Your task to perform on an android device: open app "Facebook Lite" Image 0: 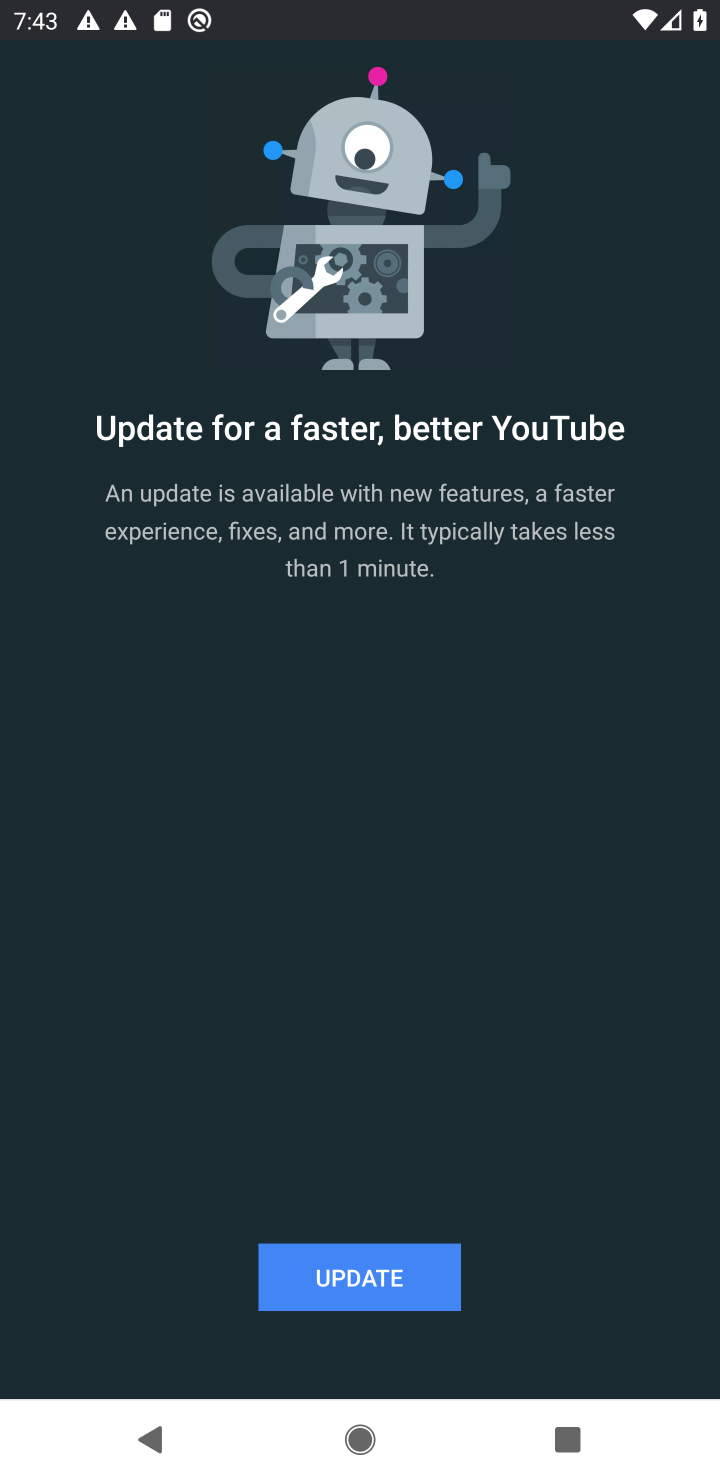
Step 0: press home button
Your task to perform on an android device: open app "Facebook Lite" Image 1: 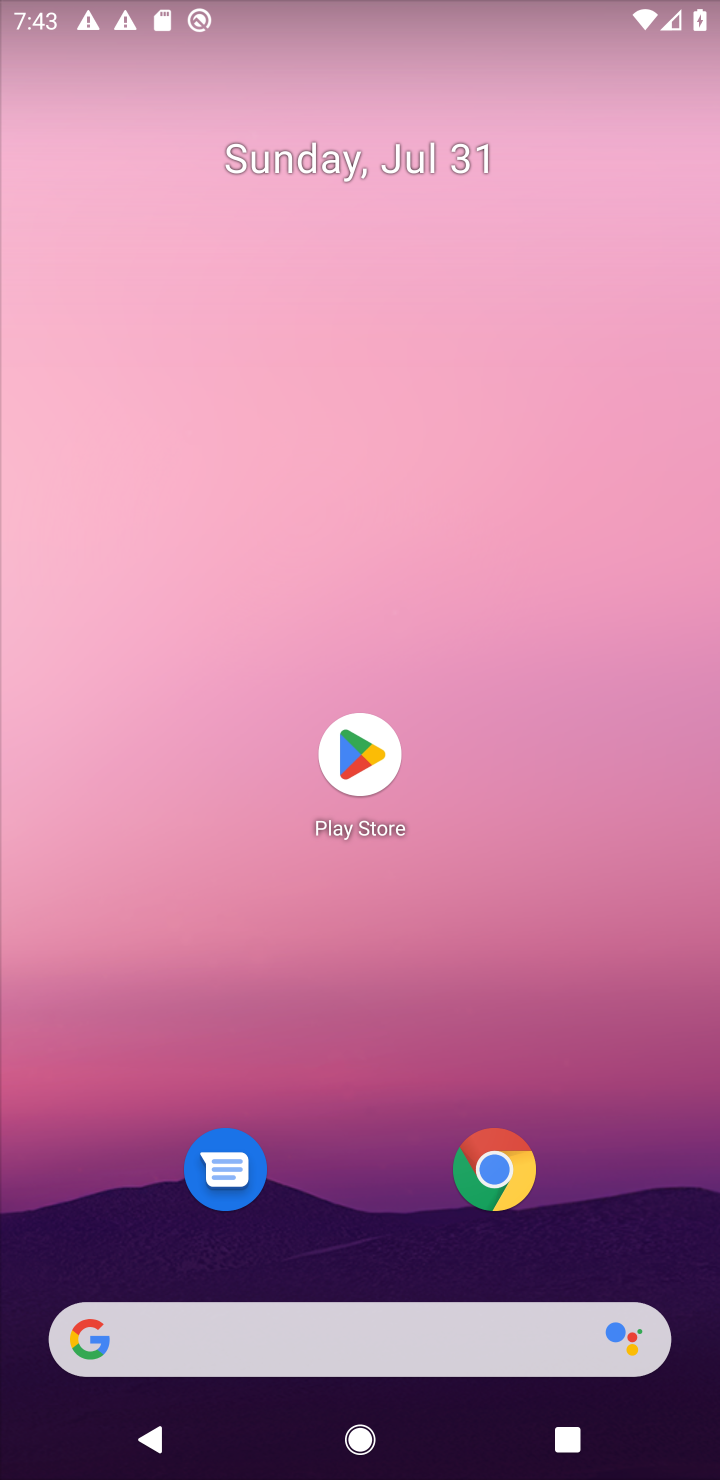
Step 1: click (358, 756)
Your task to perform on an android device: open app "Facebook Lite" Image 2: 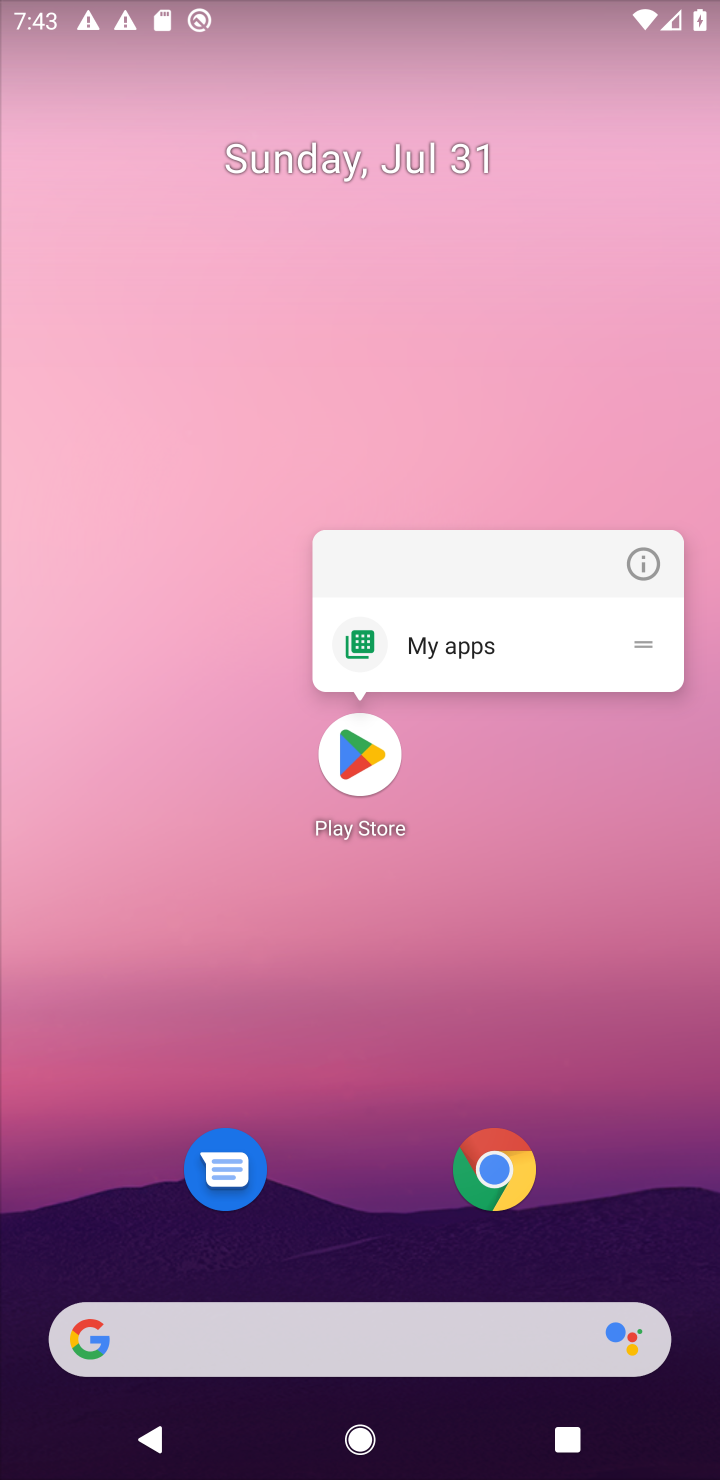
Step 2: click (364, 753)
Your task to perform on an android device: open app "Facebook Lite" Image 3: 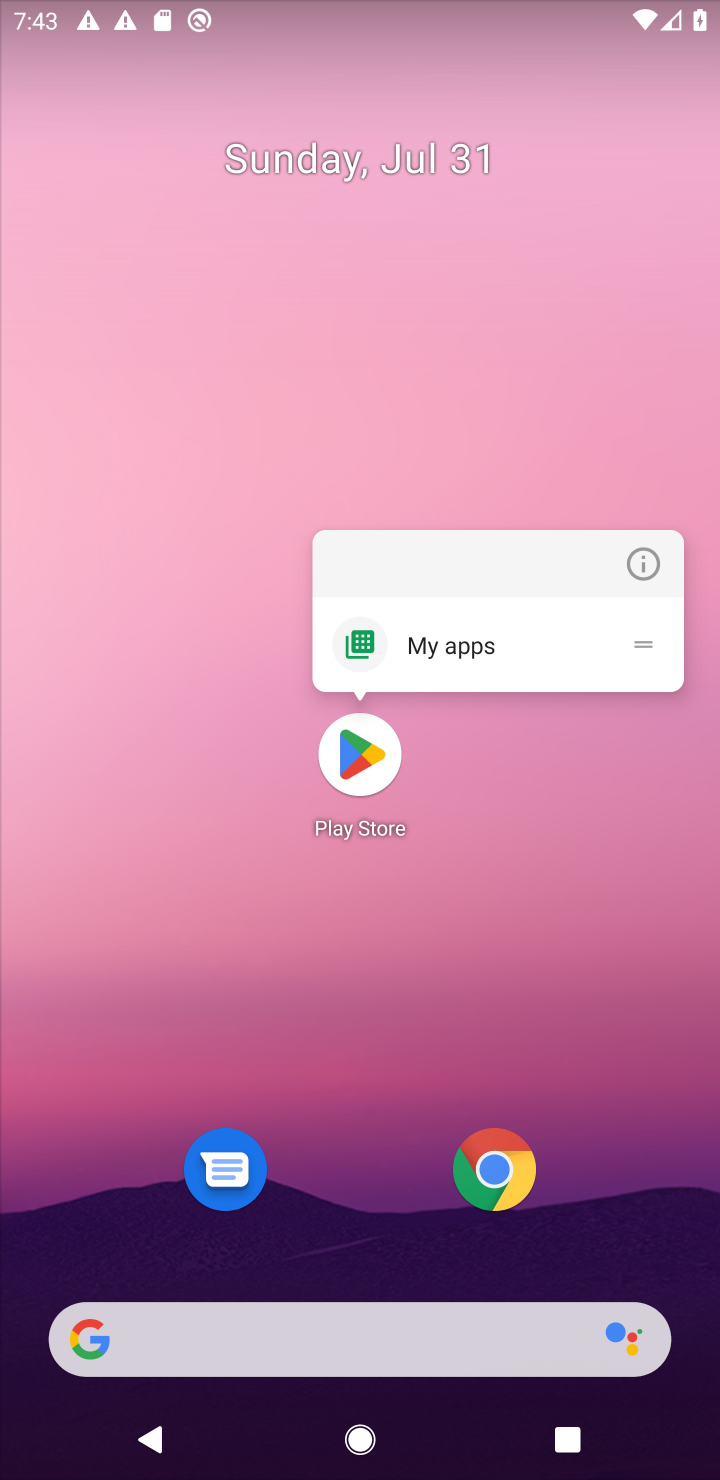
Step 3: click (364, 756)
Your task to perform on an android device: open app "Facebook Lite" Image 4: 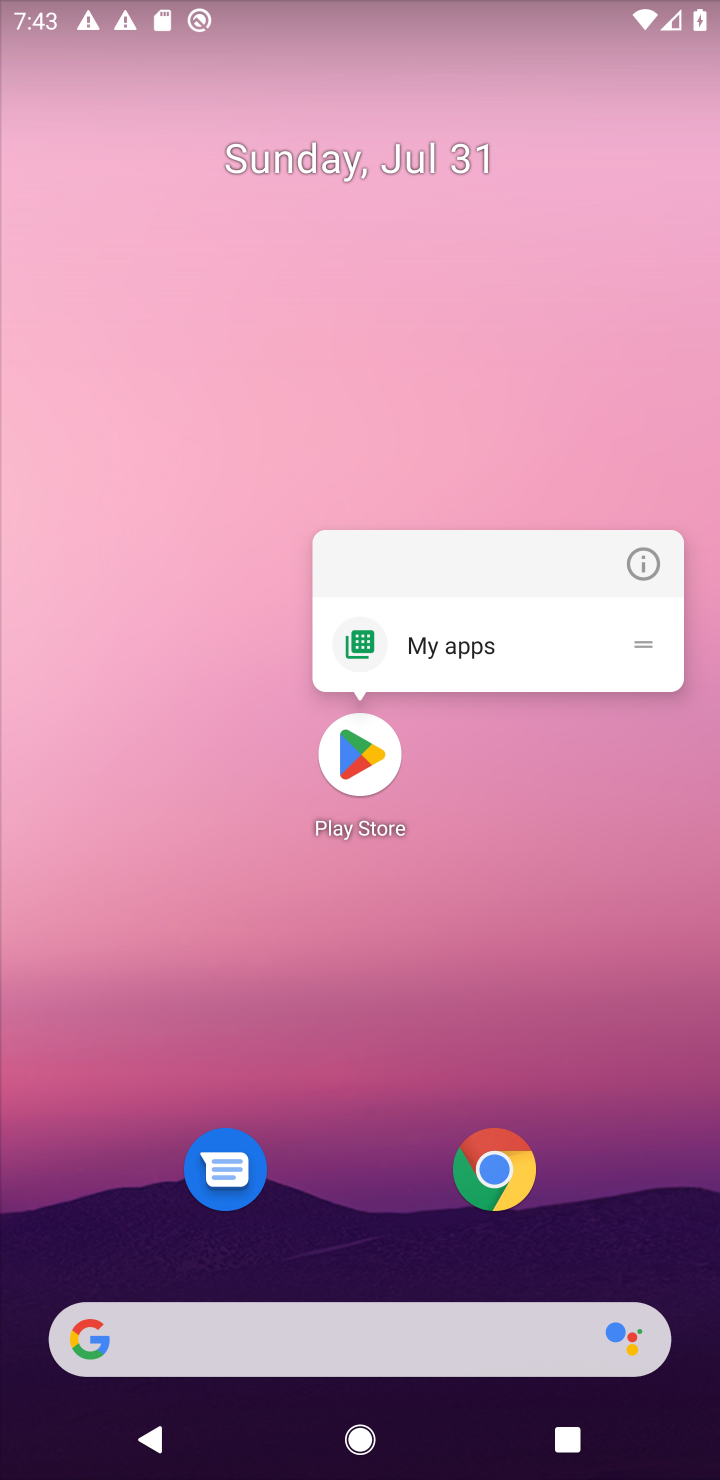
Step 4: click (364, 758)
Your task to perform on an android device: open app "Facebook Lite" Image 5: 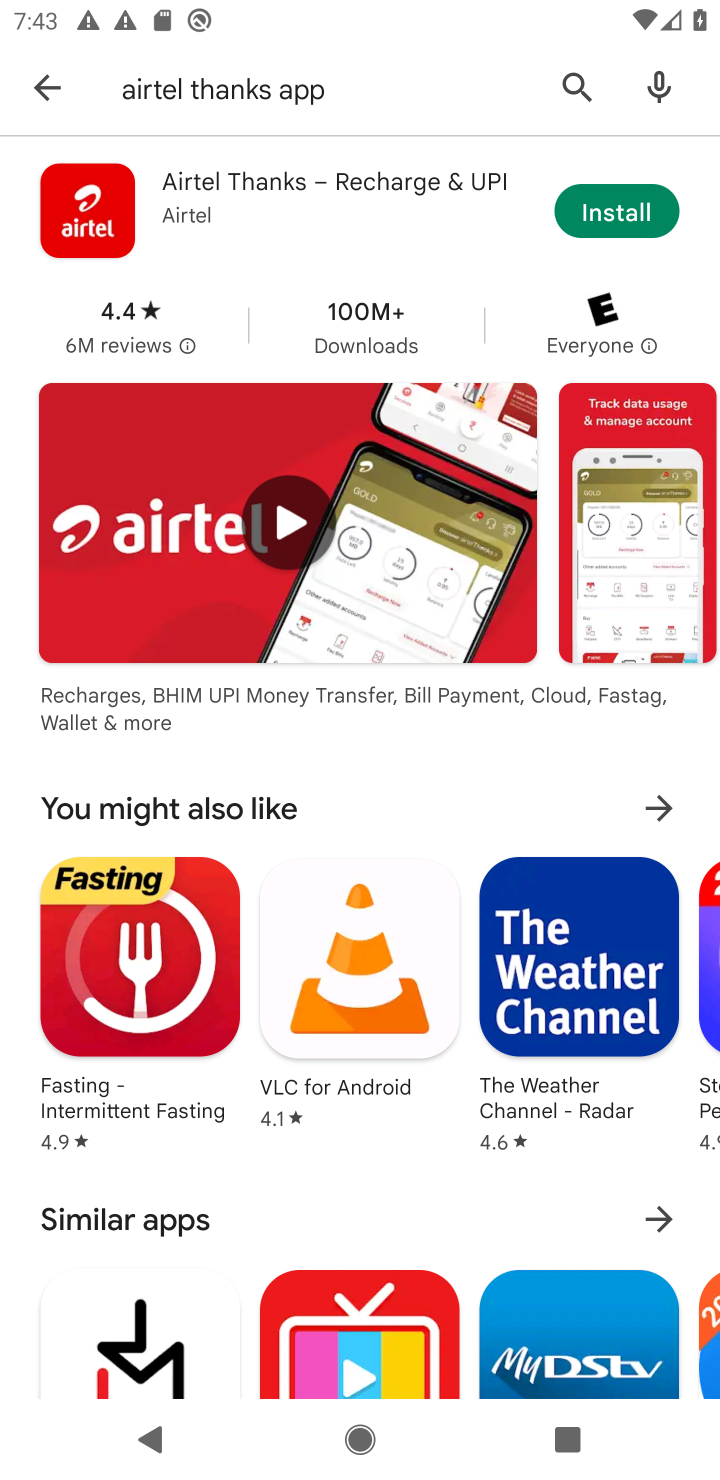
Step 5: click (575, 82)
Your task to perform on an android device: open app "Facebook Lite" Image 6: 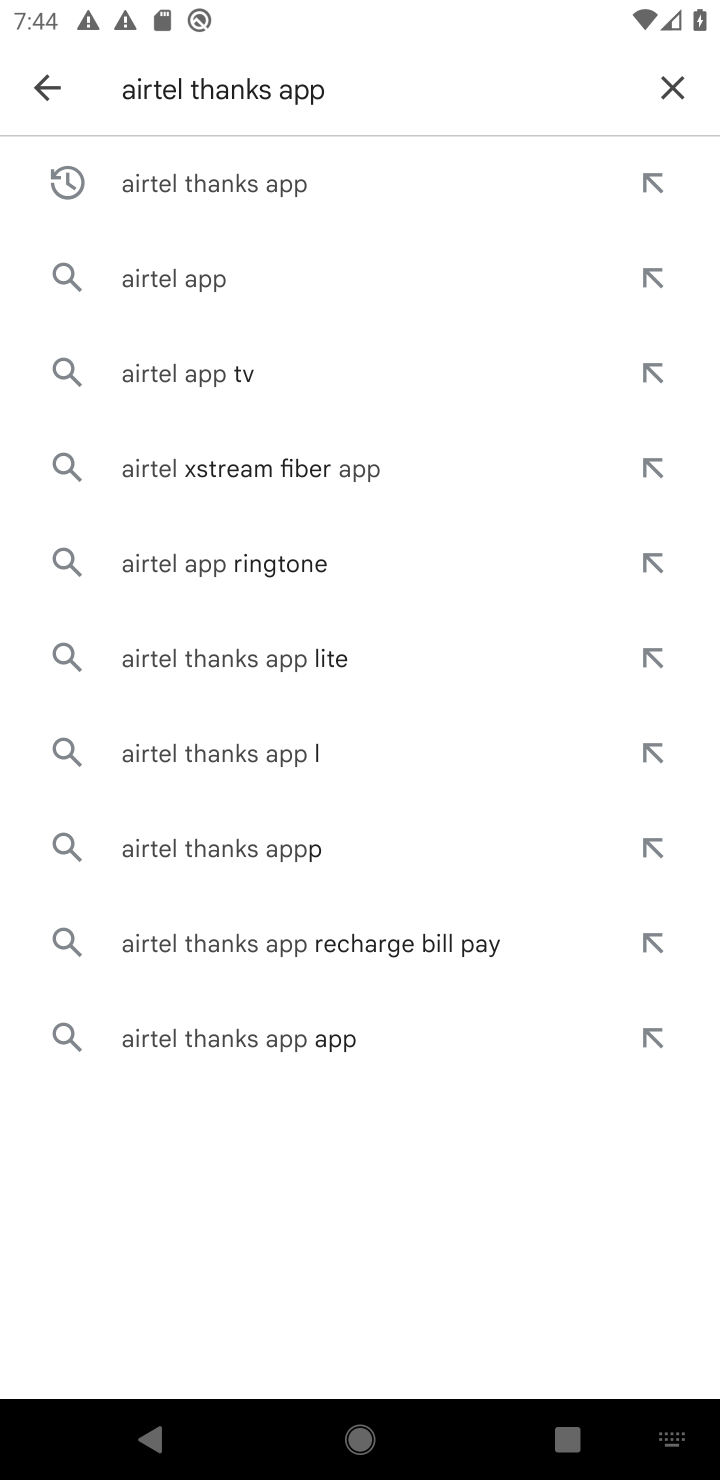
Step 6: click (666, 86)
Your task to perform on an android device: open app "Facebook Lite" Image 7: 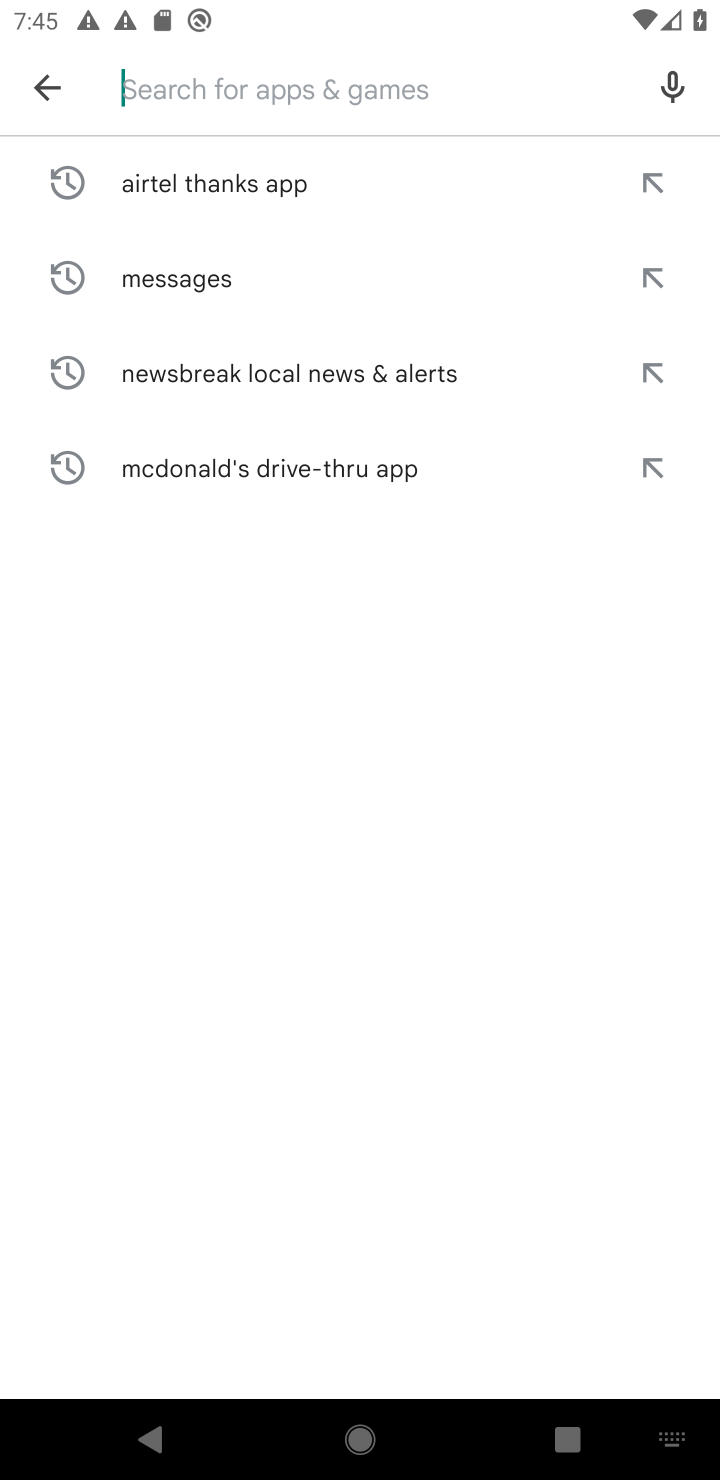
Step 7: type "Facebook Lite"
Your task to perform on an android device: open app "Facebook Lite" Image 8: 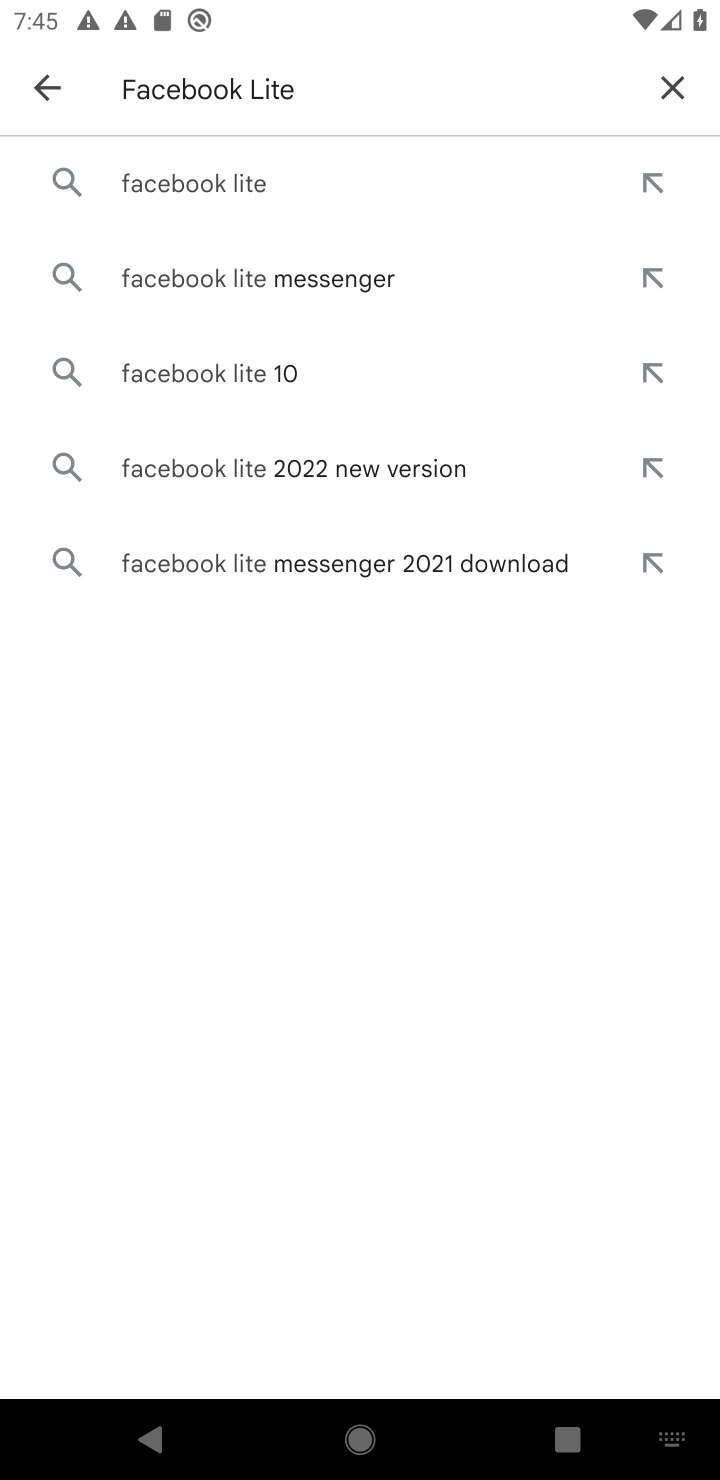
Step 8: click (212, 181)
Your task to perform on an android device: open app "Facebook Lite" Image 9: 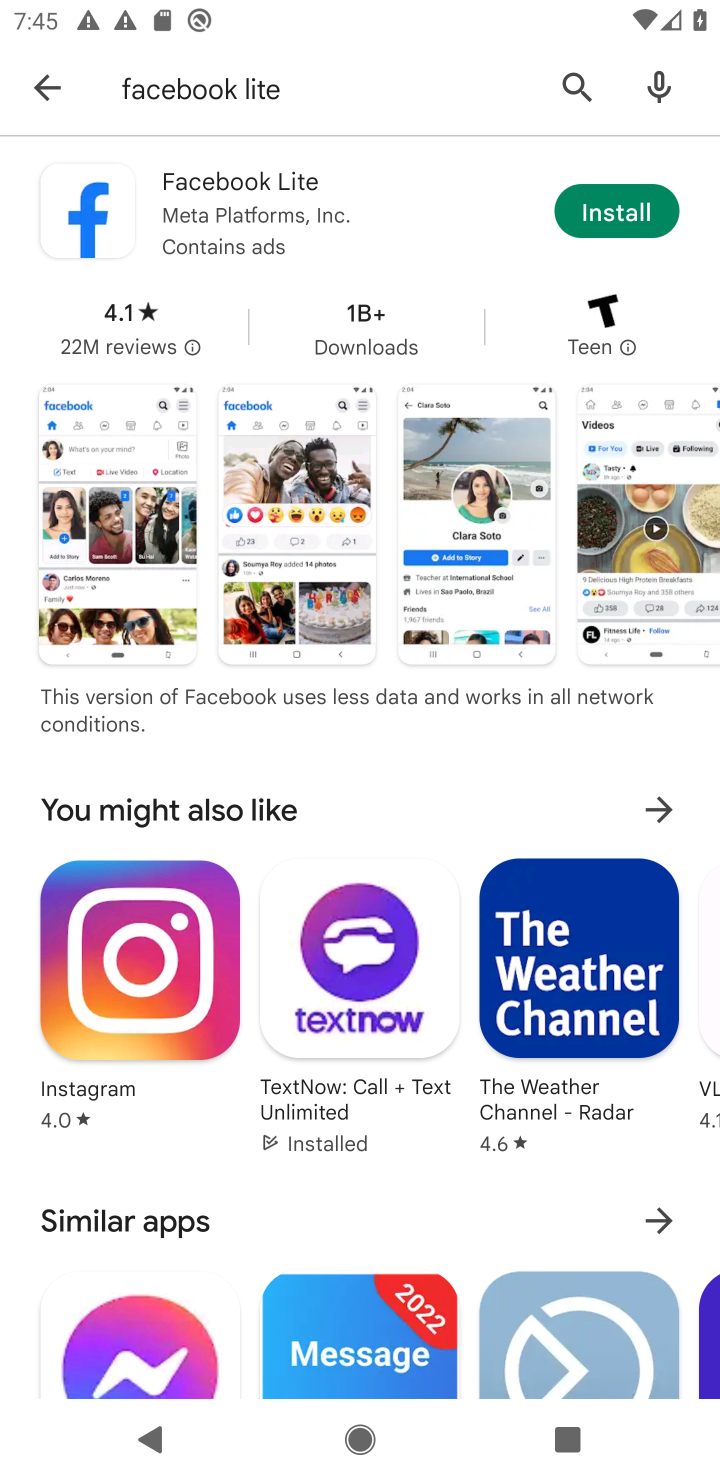
Step 9: task complete